Your task to perform on an android device: Open Maps and search for coffee Image 0: 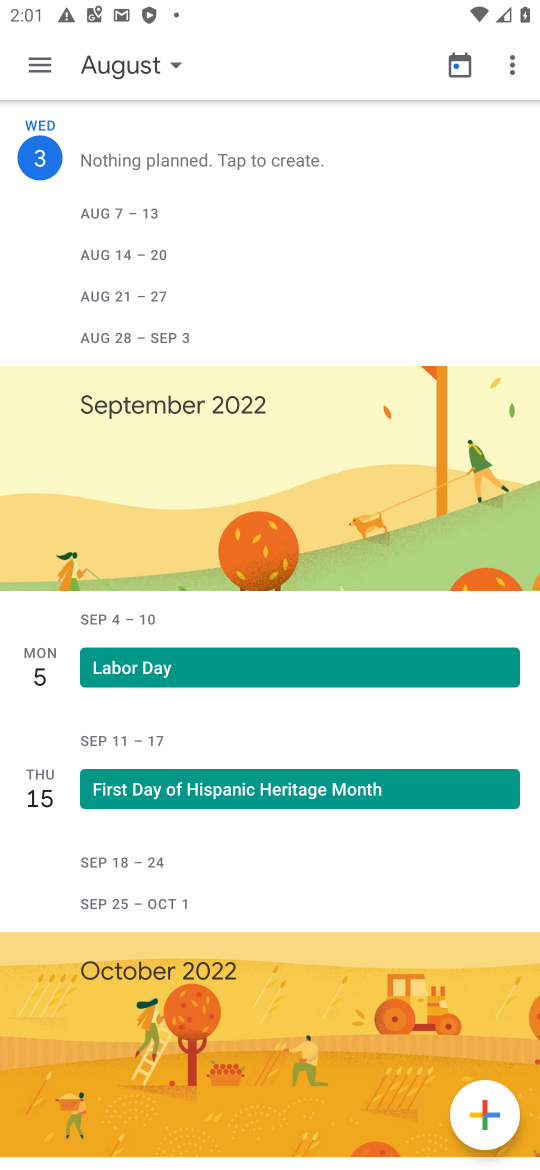
Step 0: press home button
Your task to perform on an android device: Open Maps and search for coffee Image 1: 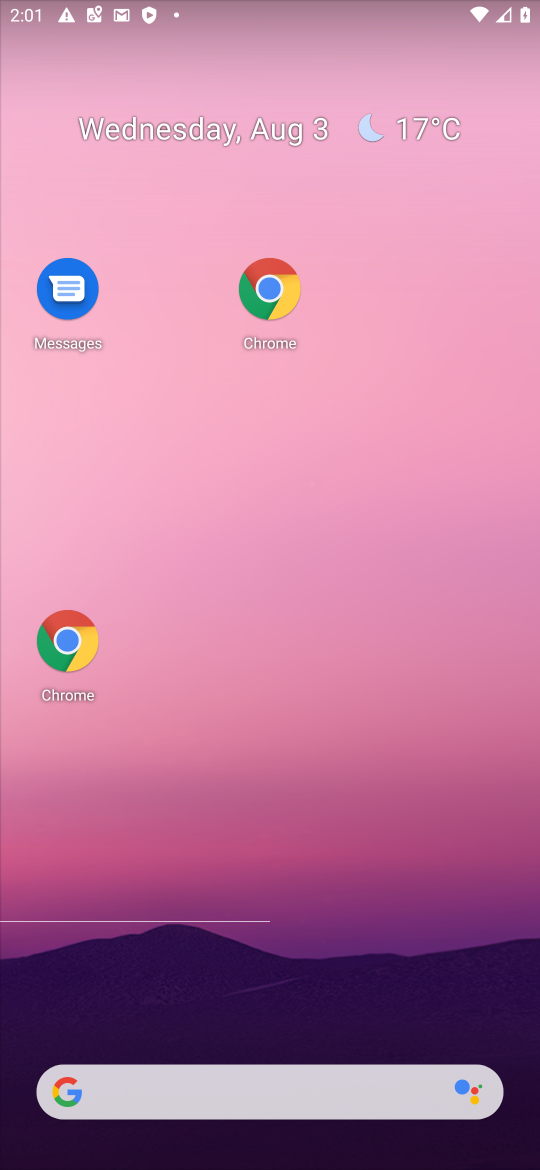
Step 1: drag from (375, 953) to (366, 59)
Your task to perform on an android device: Open Maps and search for coffee Image 2: 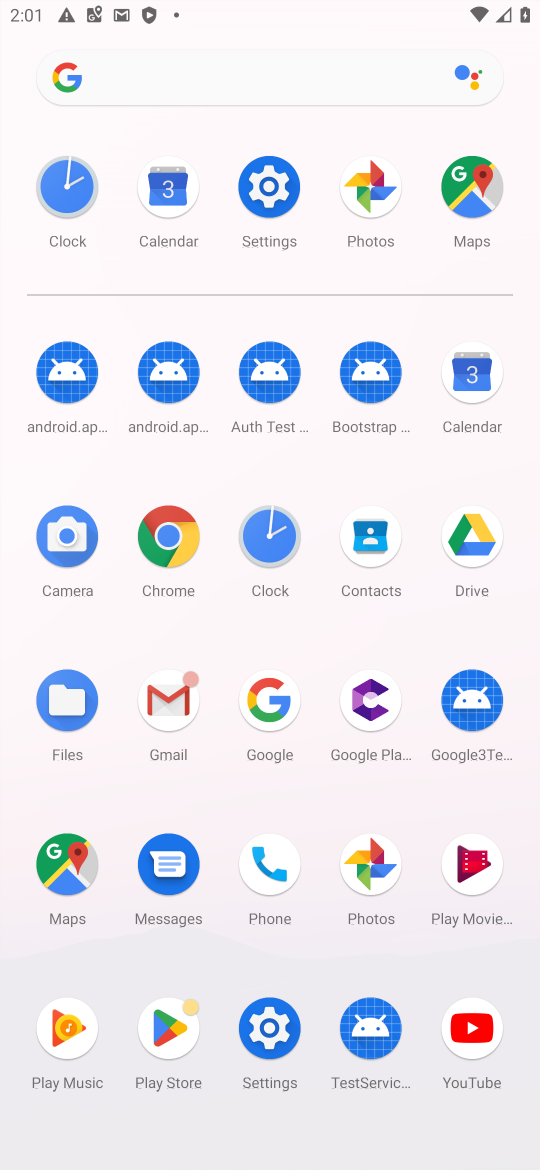
Step 2: click (65, 862)
Your task to perform on an android device: Open Maps and search for coffee Image 3: 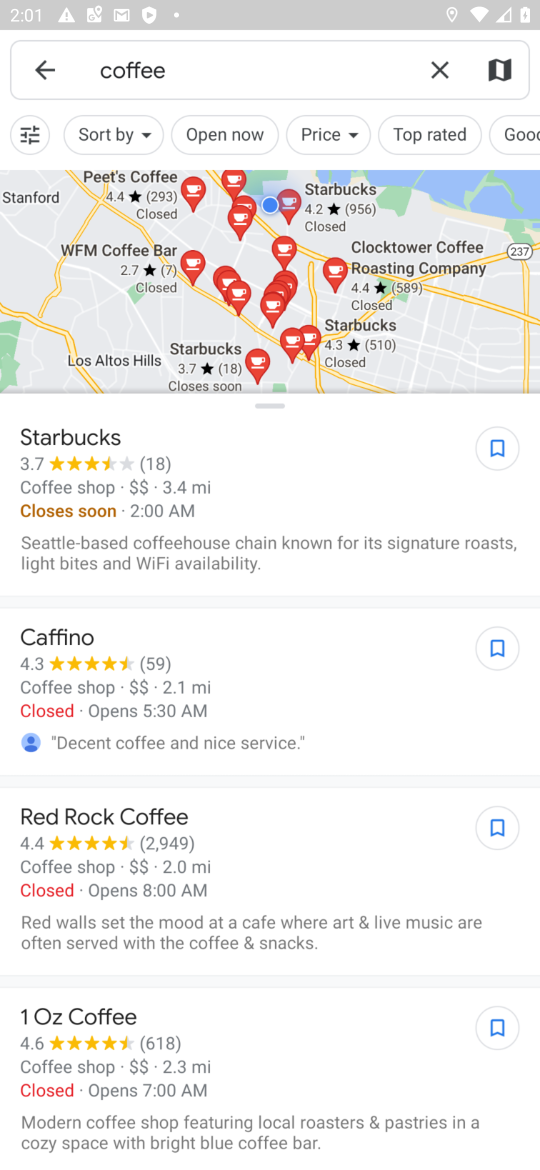
Step 3: task complete